Your task to perform on an android device: Go to display settings Image 0: 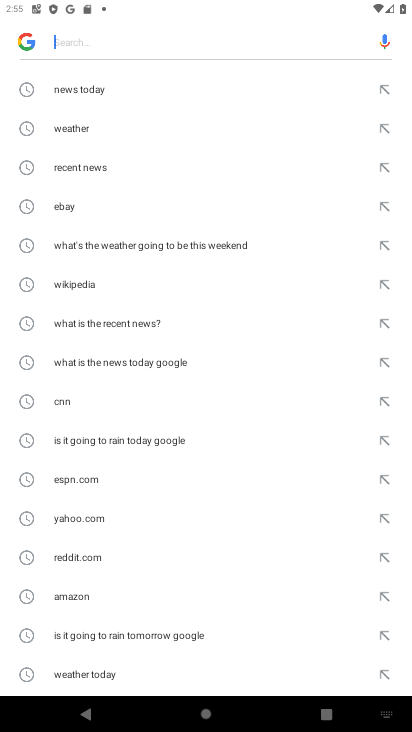
Step 0: press home button
Your task to perform on an android device: Go to display settings Image 1: 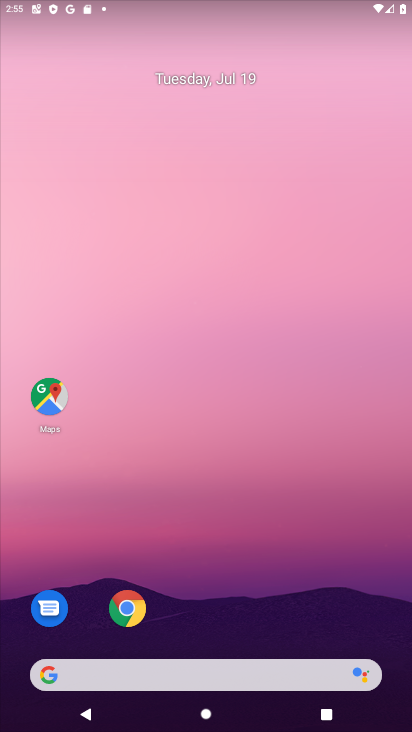
Step 1: drag from (302, 614) to (216, 94)
Your task to perform on an android device: Go to display settings Image 2: 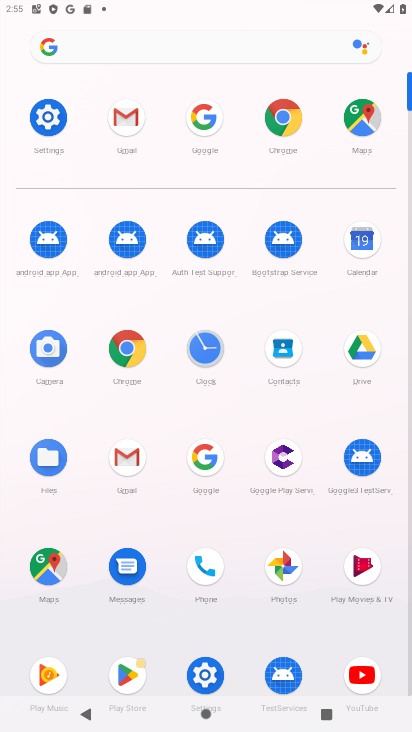
Step 2: click (53, 117)
Your task to perform on an android device: Go to display settings Image 3: 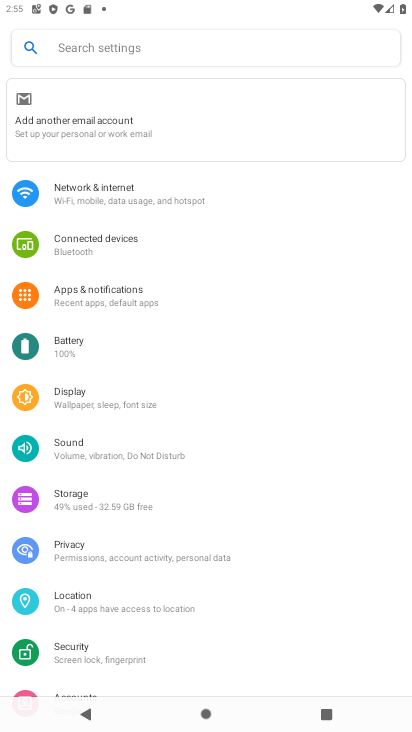
Step 3: click (95, 399)
Your task to perform on an android device: Go to display settings Image 4: 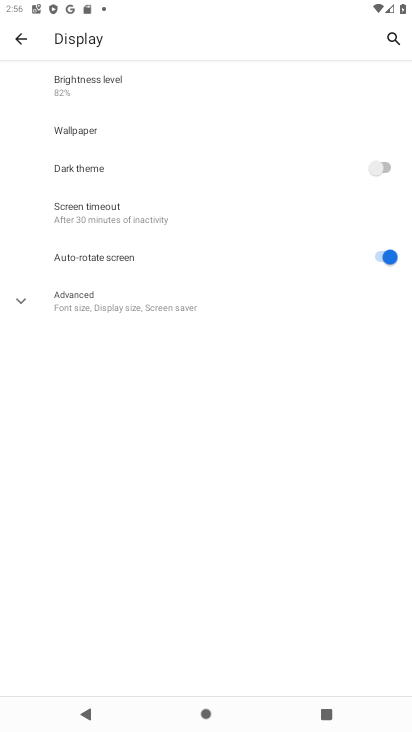
Step 4: task complete